Your task to perform on an android device: Go to settings Image 0: 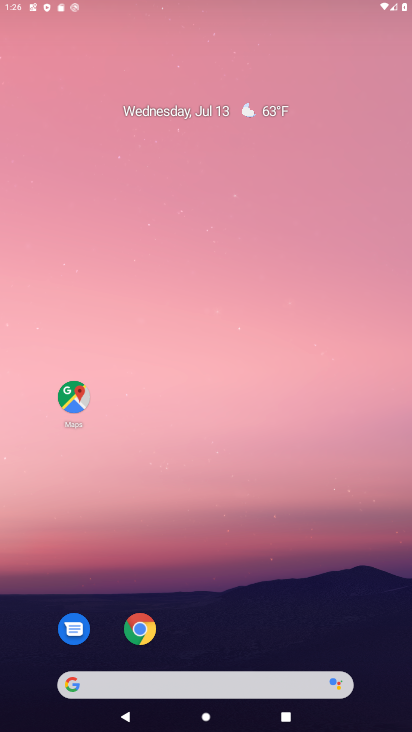
Step 0: drag from (258, 592) to (277, 158)
Your task to perform on an android device: Go to settings Image 1: 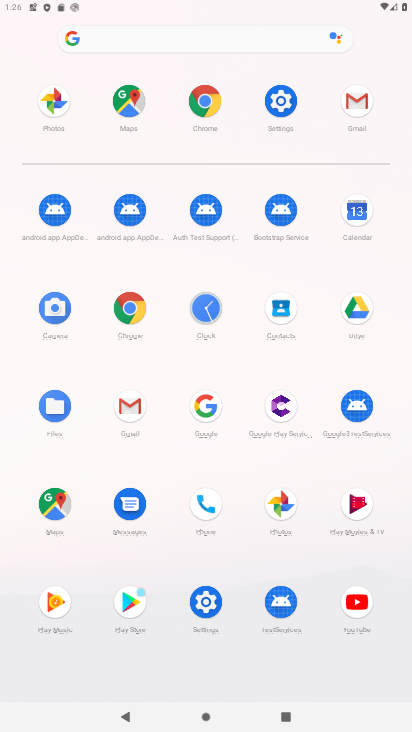
Step 1: click (202, 598)
Your task to perform on an android device: Go to settings Image 2: 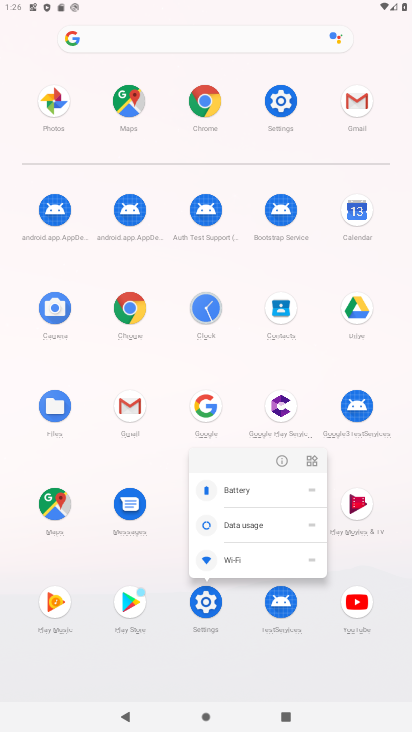
Step 2: click (284, 453)
Your task to perform on an android device: Go to settings Image 3: 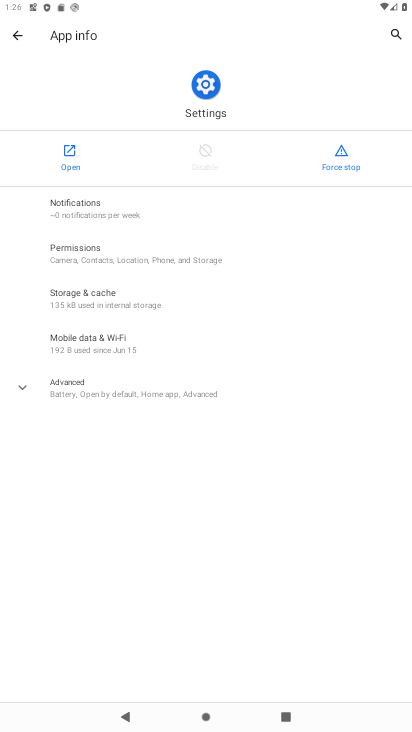
Step 3: click (74, 143)
Your task to perform on an android device: Go to settings Image 4: 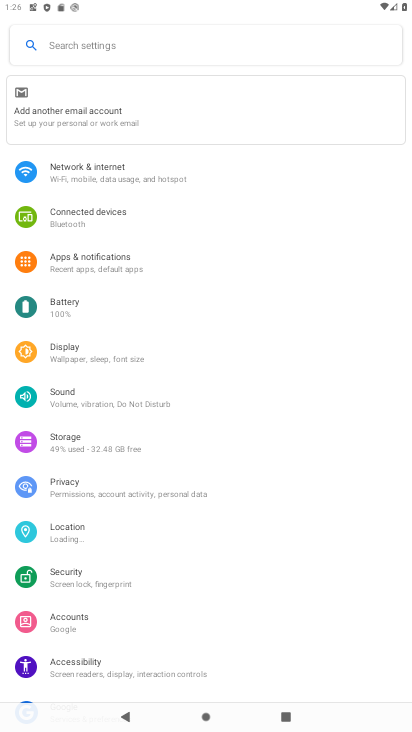
Step 4: task complete